Your task to perform on an android device: clear all cookies in the chrome app Image 0: 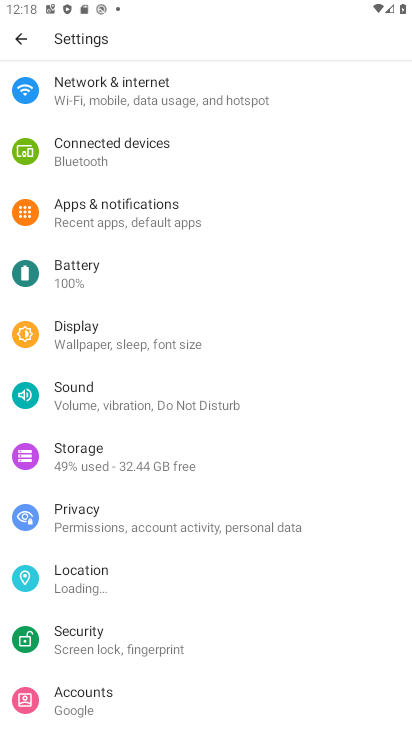
Step 0: press home button
Your task to perform on an android device: clear all cookies in the chrome app Image 1: 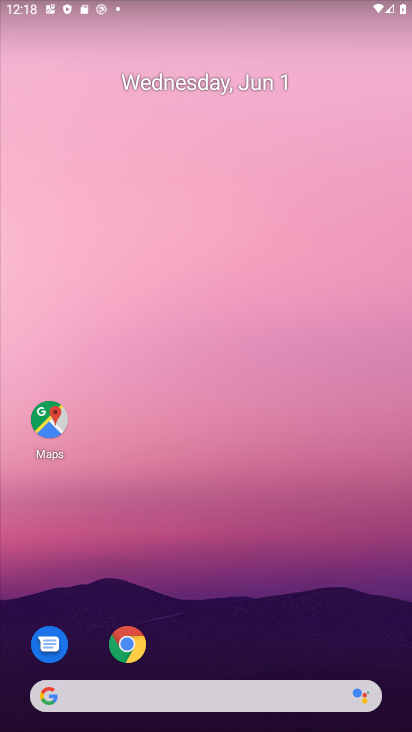
Step 1: drag from (333, 567) to (306, 100)
Your task to perform on an android device: clear all cookies in the chrome app Image 2: 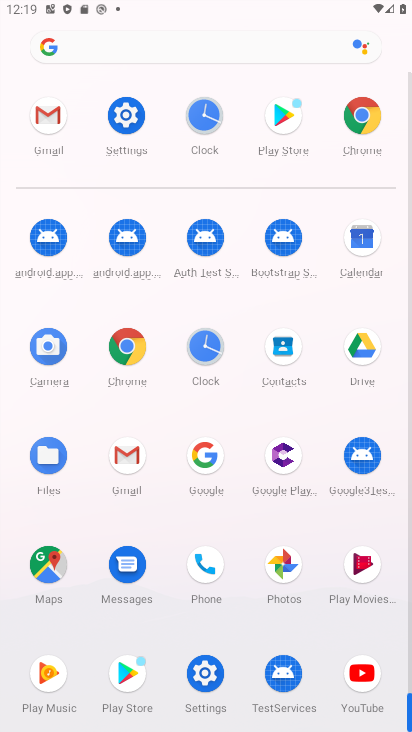
Step 2: click (132, 351)
Your task to perform on an android device: clear all cookies in the chrome app Image 3: 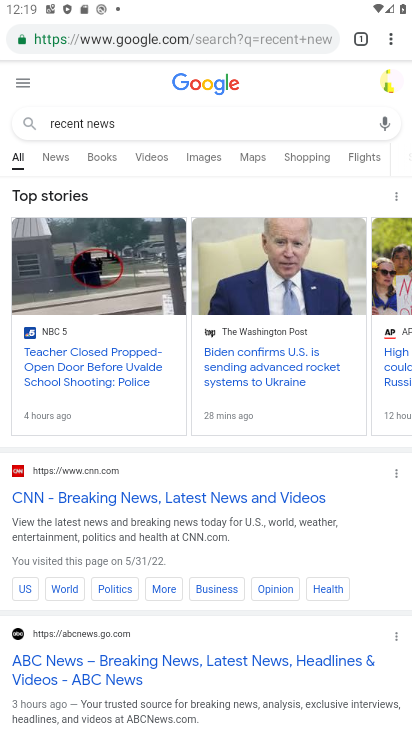
Step 3: task complete